Your task to perform on an android device: Where can I buy a nice beach sandals? Image 0: 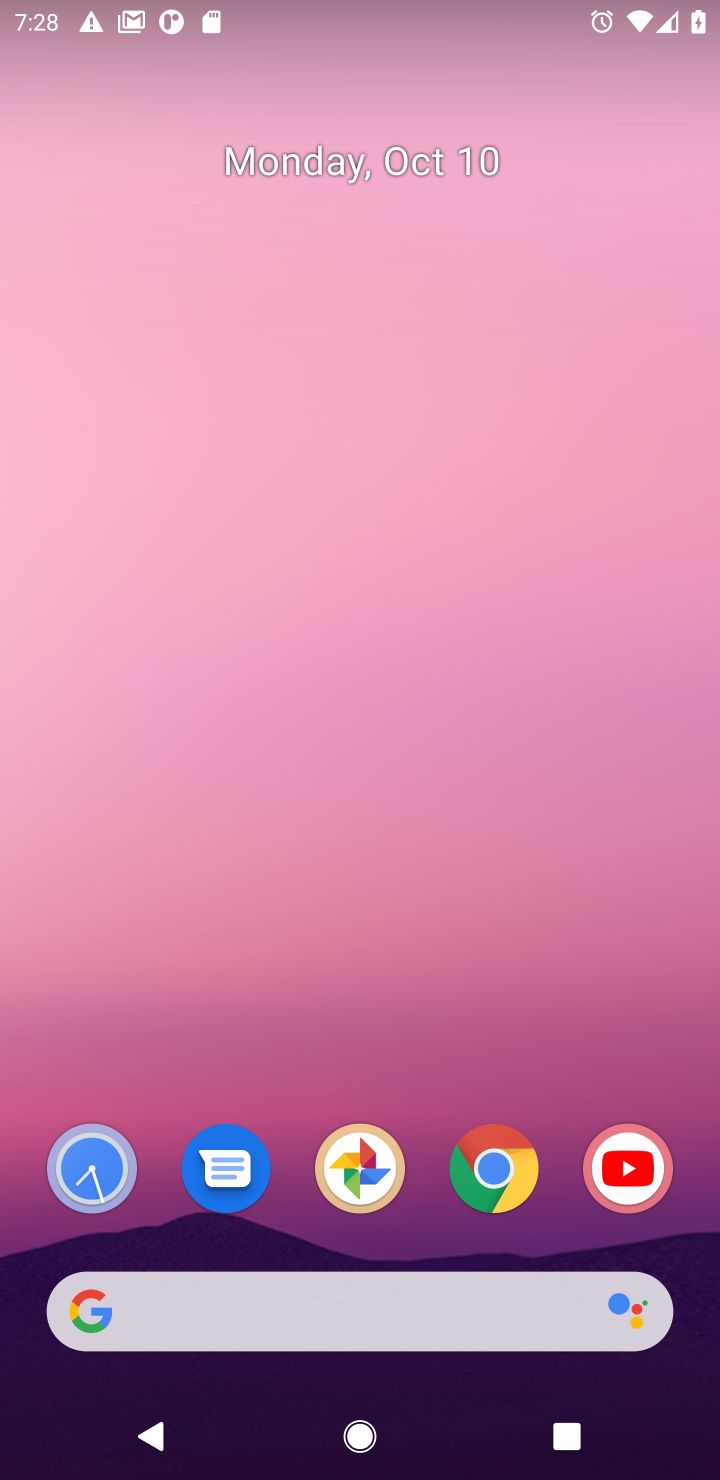
Step 0: click (489, 1198)
Your task to perform on an android device: Where can I buy a nice beach sandals? Image 1: 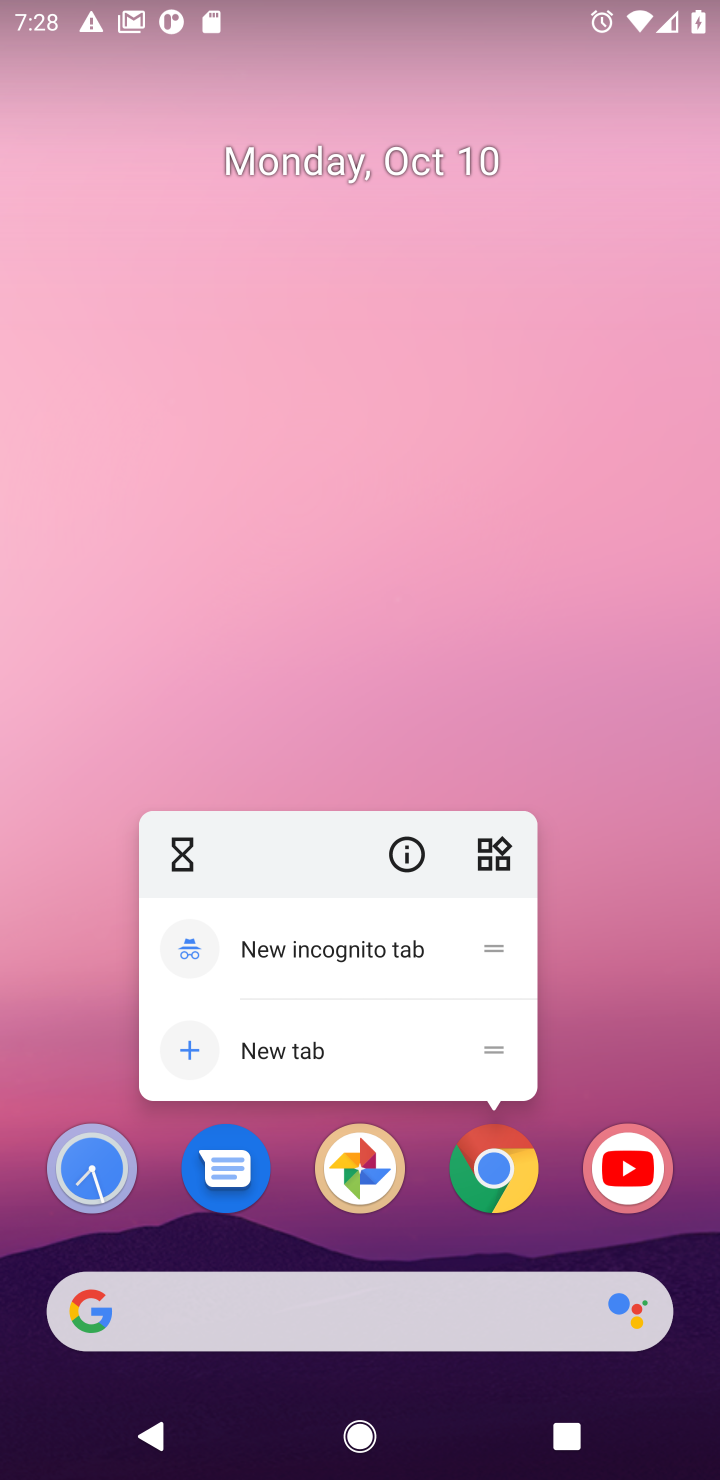
Step 1: click (494, 1178)
Your task to perform on an android device: Where can I buy a nice beach sandals? Image 2: 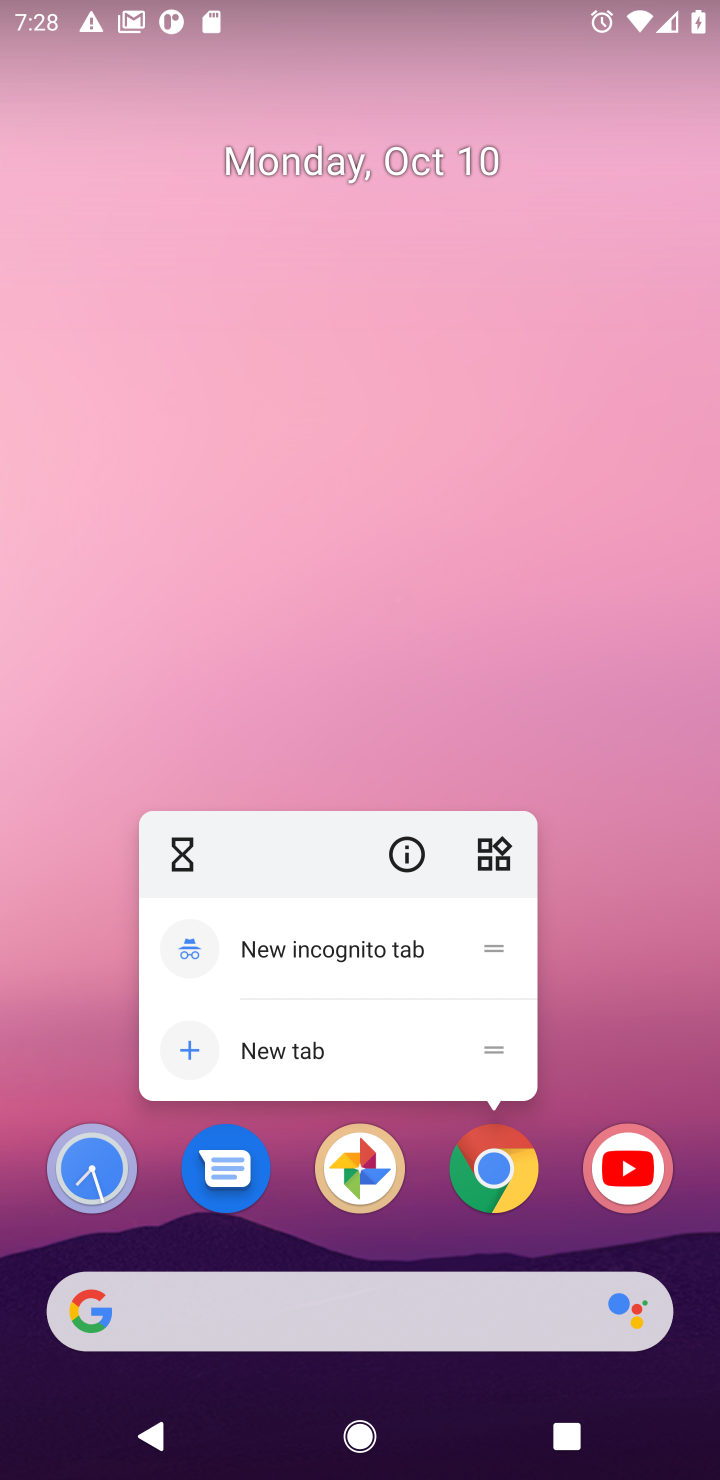
Step 2: click (492, 1178)
Your task to perform on an android device: Where can I buy a nice beach sandals? Image 3: 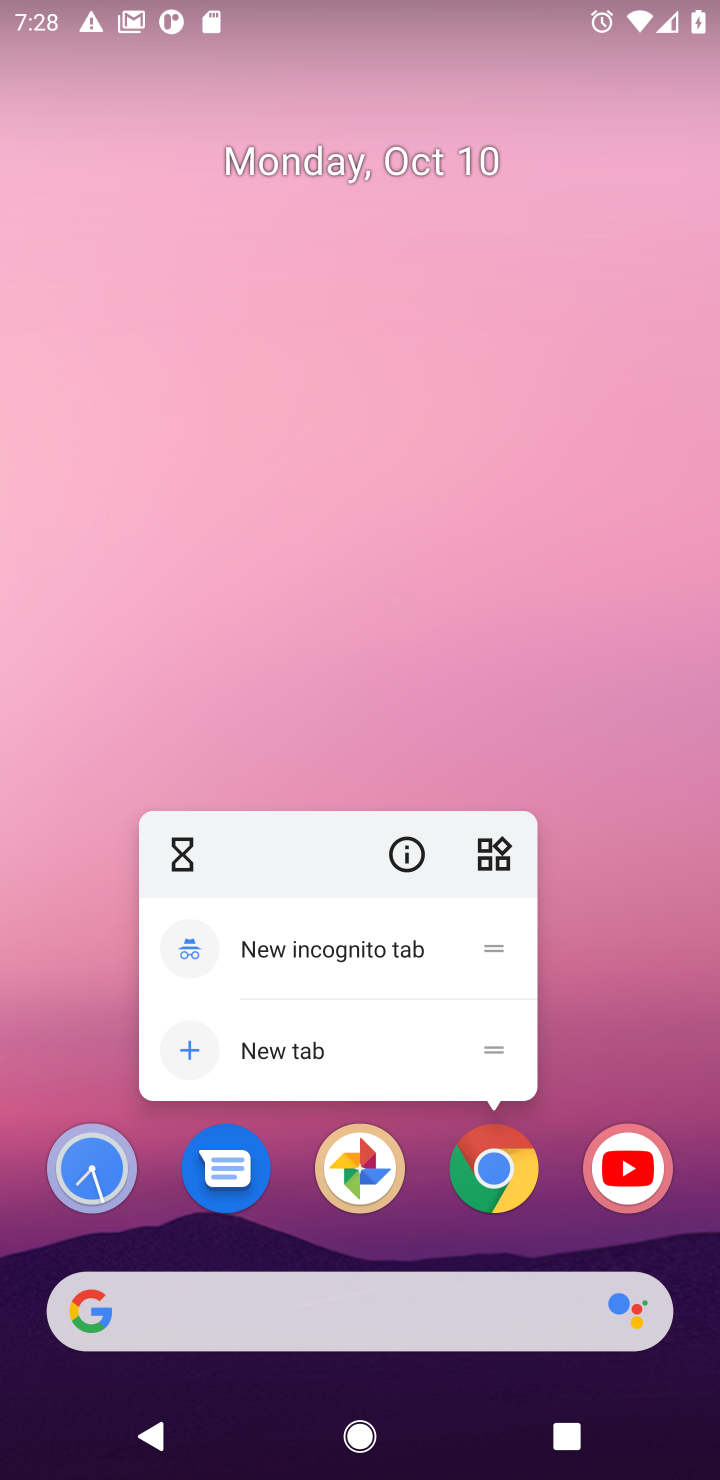
Step 3: click (492, 1178)
Your task to perform on an android device: Where can I buy a nice beach sandals? Image 4: 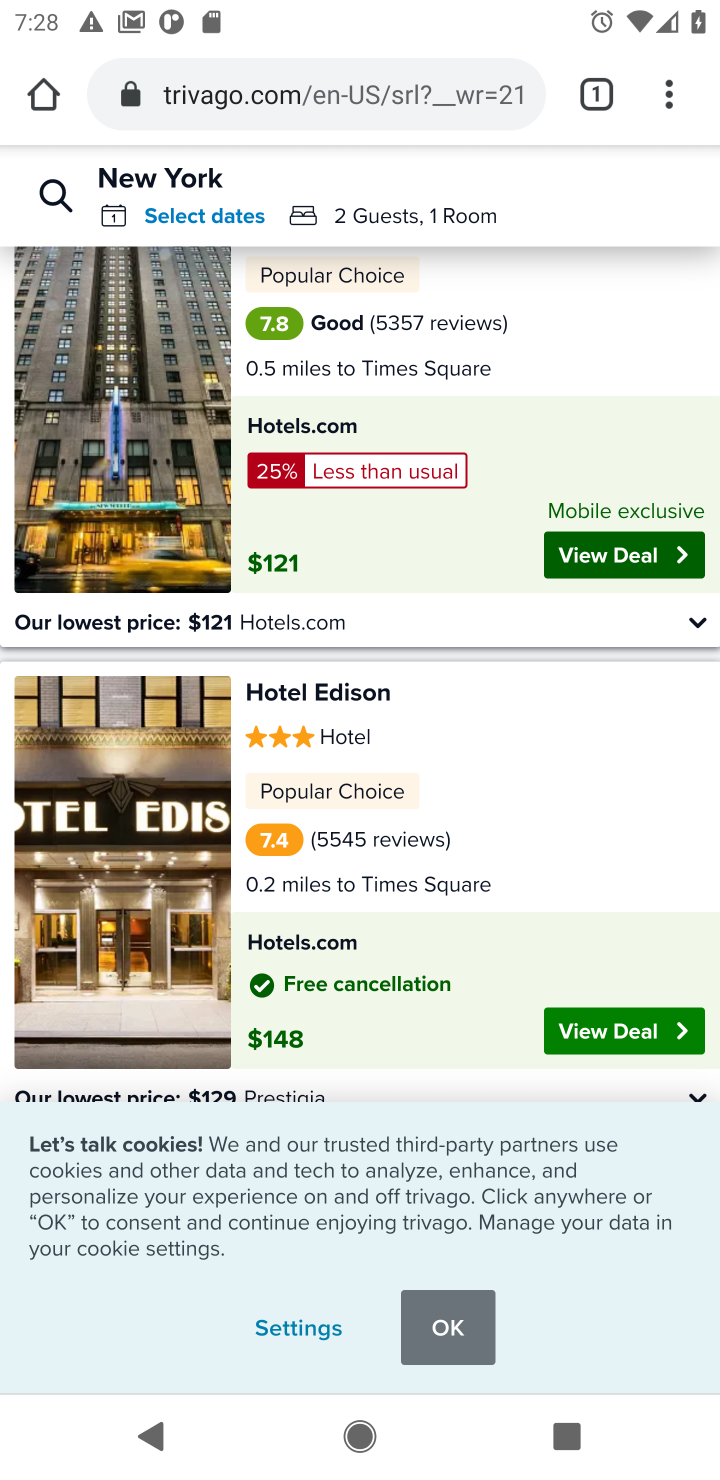
Step 4: click (307, 112)
Your task to perform on an android device: Where can I buy a nice beach sandals? Image 5: 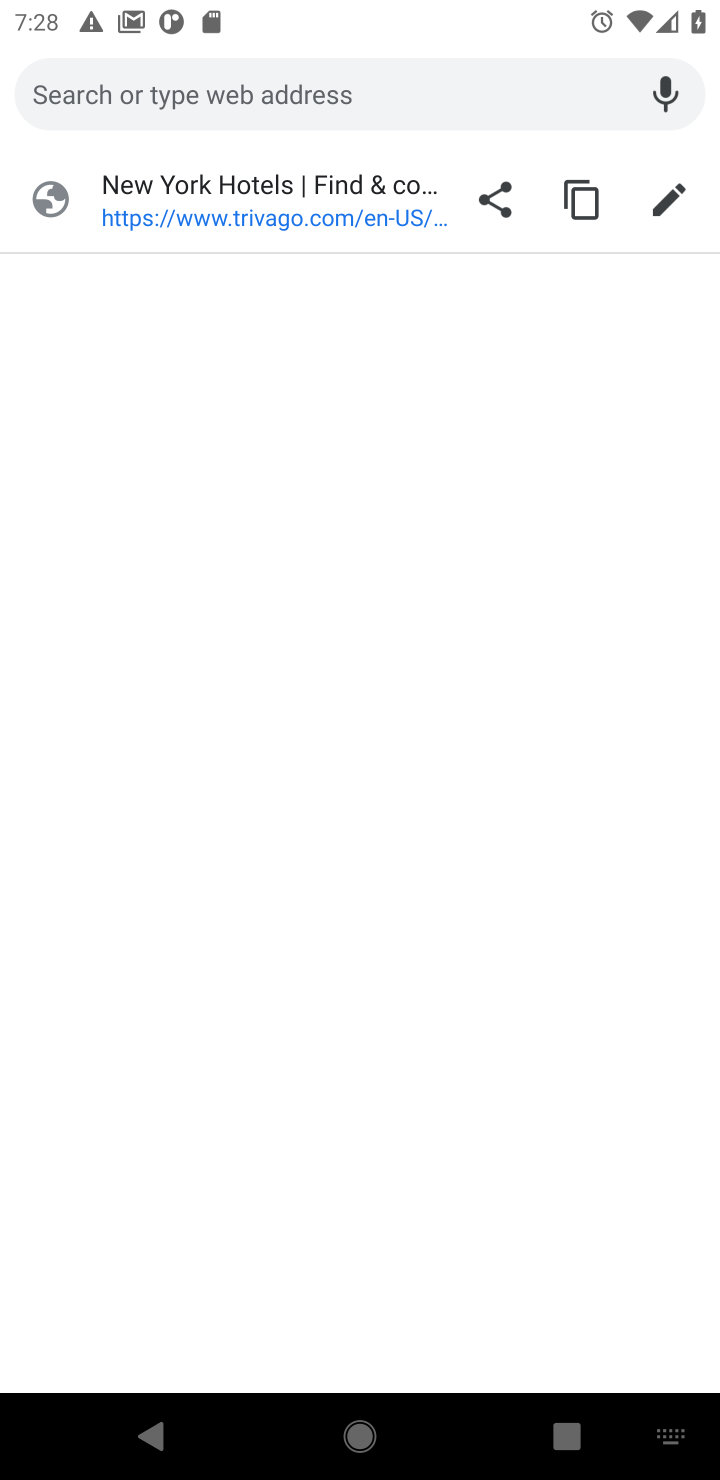
Step 5: type "nice beach sandals"
Your task to perform on an android device: Where can I buy a nice beach sandals? Image 6: 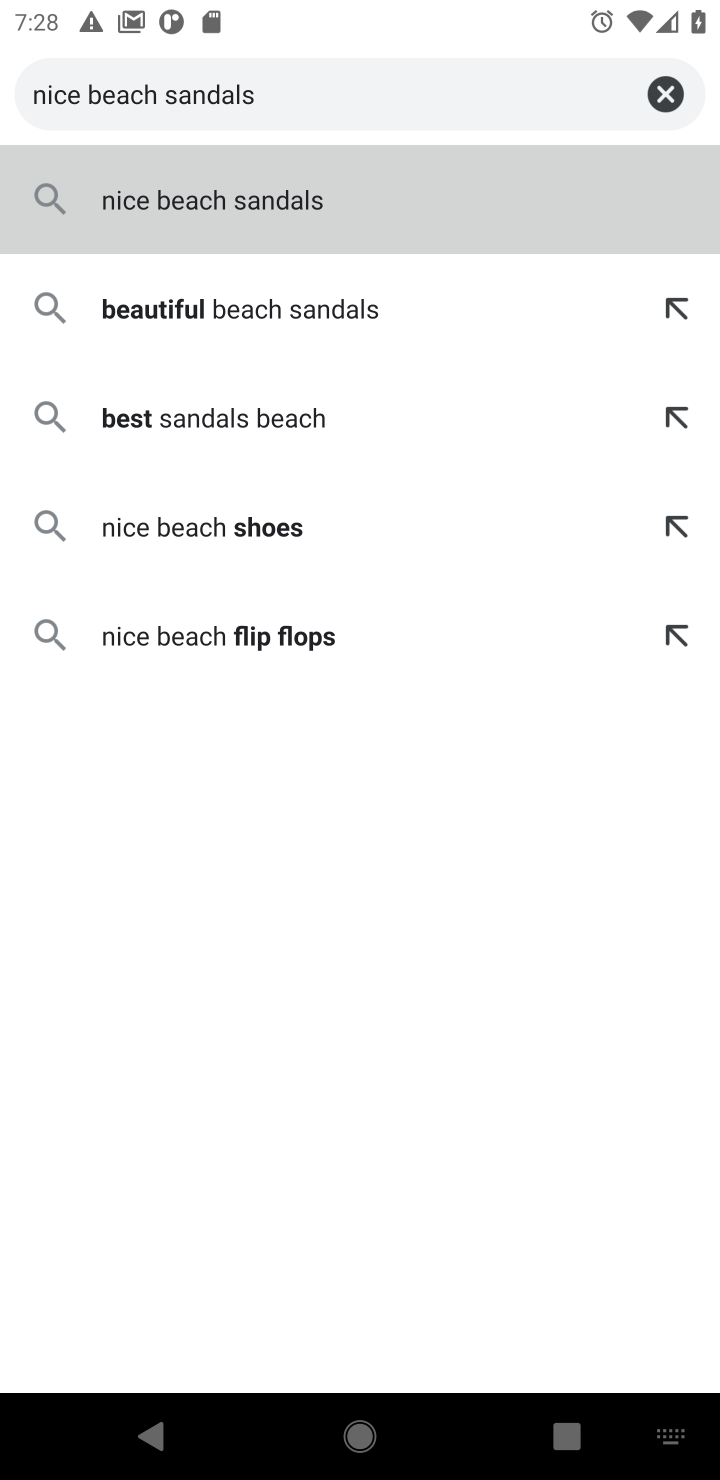
Step 6: click (186, 210)
Your task to perform on an android device: Where can I buy a nice beach sandals? Image 7: 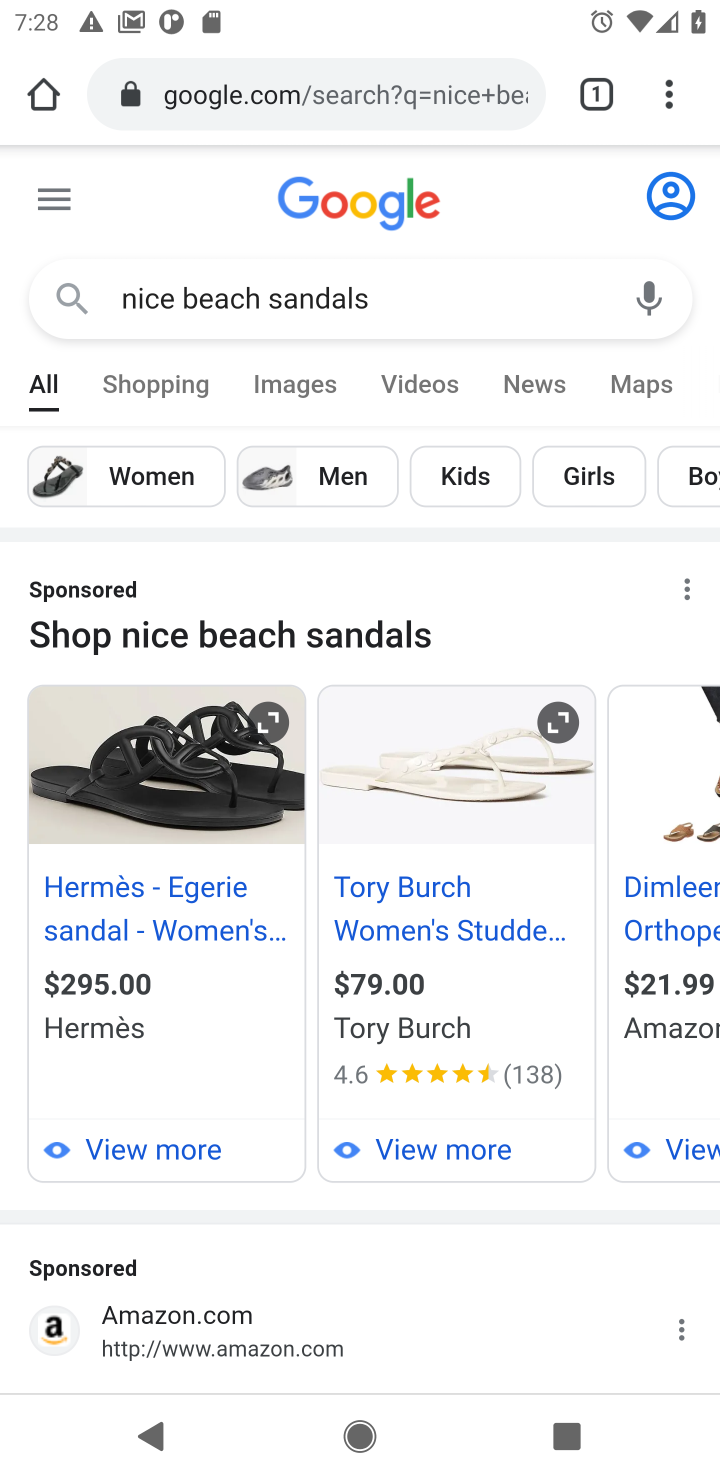
Step 7: task complete